Your task to perform on an android device: find which apps use the phone's location Image 0: 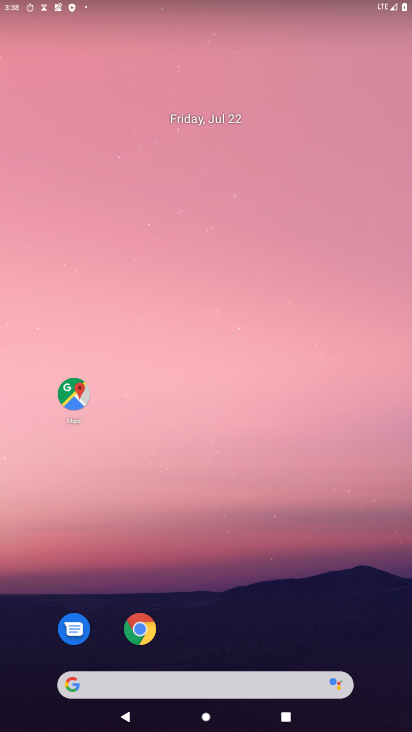
Step 0: drag from (160, 684) to (170, 32)
Your task to perform on an android device: find which apps use the phone's location Image 1: 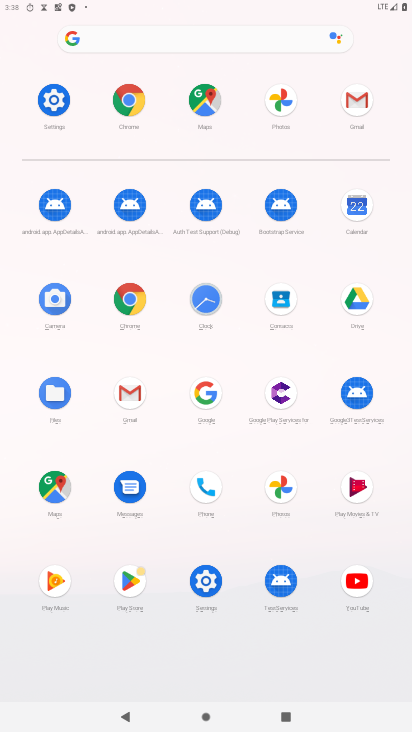
Step 1: click (58, 96)
Your task to perform on an android device: find which apps use the phone's location Image 2: 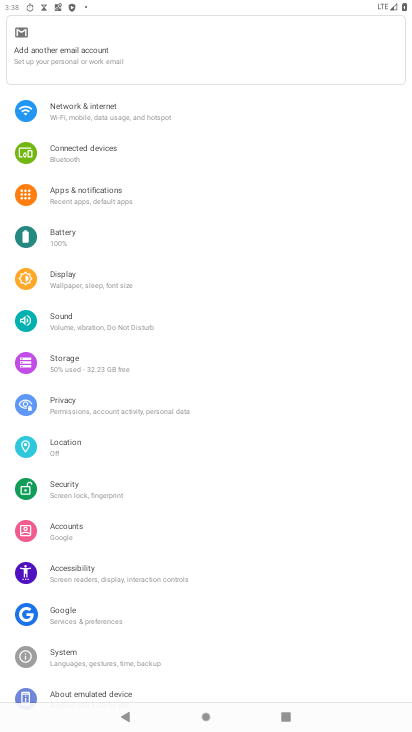
Step 2: click (74, 458)
Your task to perform on an android device: find which apps use the phone's location Image 3: 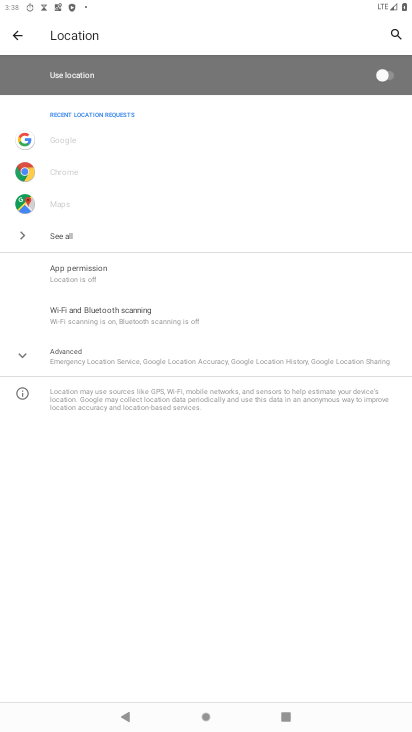
Step 3: click (135, 266)
Your task to perform on an android device: find which apps use the phone's location Image 4: 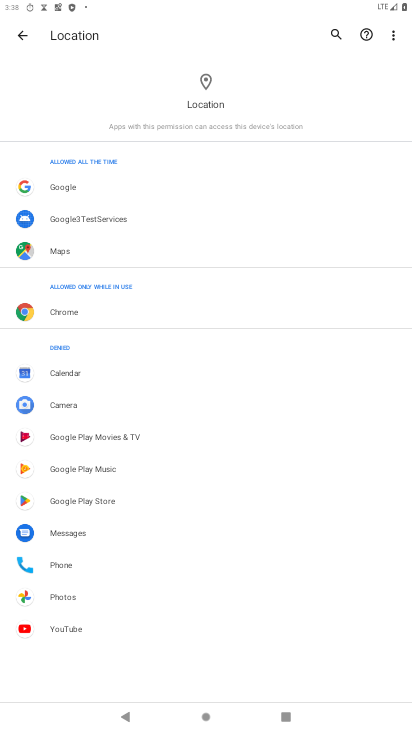
Step 4: task complete